Your task to perform on an android device: toggle airplane mode Image 0: 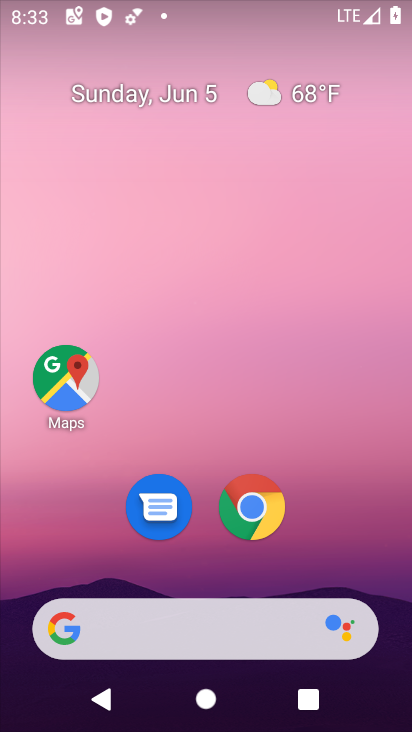
Step 0: drag from (304, 564) to (343, 122)
Your task to perform on an android device: toggle airplane mode Image 1: 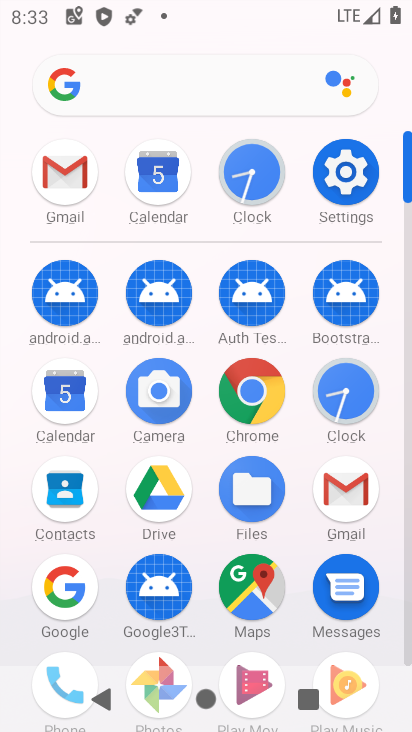
Step 1: click (344, 186)
Your task to perform on an android device: toggle airplane mode Image 2: 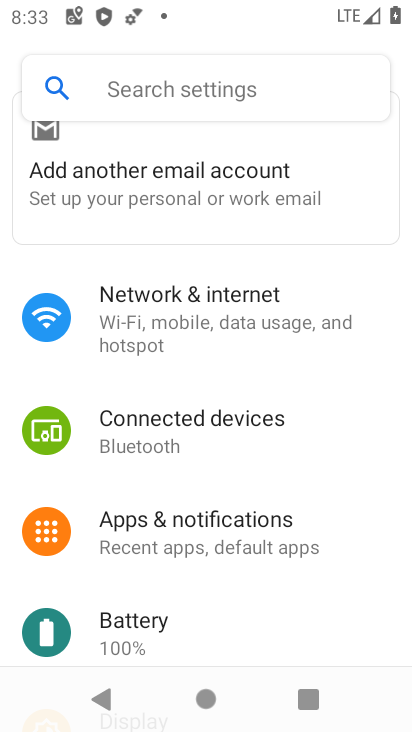
Step 2: click (220, 283)
Your task to perform on an android device: toggle airplane mode Image 3: 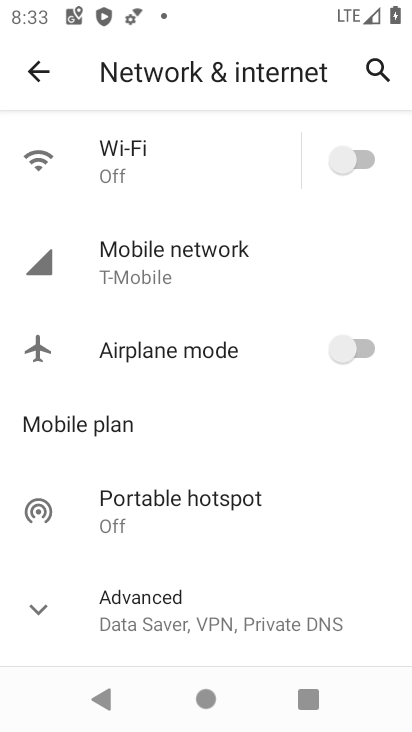
Step 3: click (342, 349)
Your task to perform on an android device: toggle airplane mode Image 4: 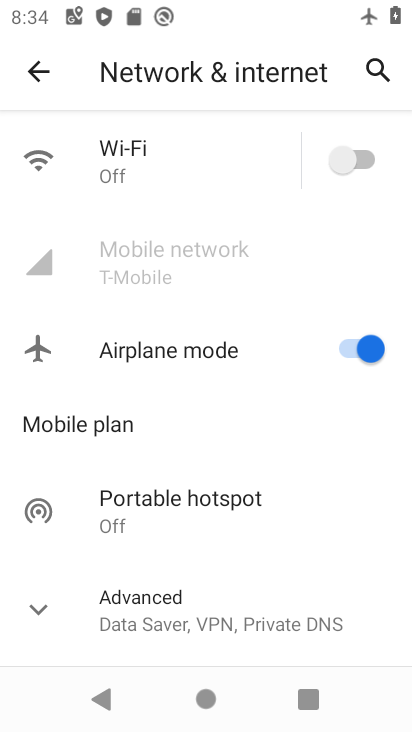
Step 4: task complete